Your task to perform on an android device: open app "Cash App" Image 0: 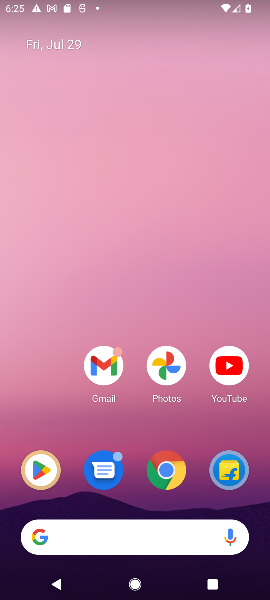
Step 0: drag from (193, 415) to (195, 31)
Your task to perform on an android device: open app "Cash App" Image 1: 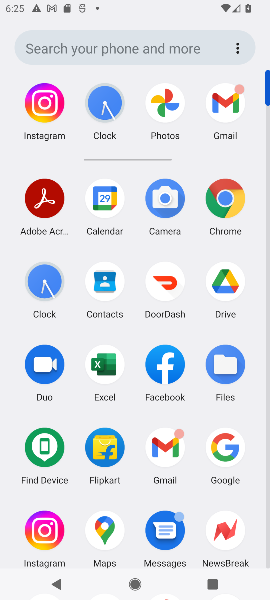
Step 1: drag from (195, 485) to (194, 293)
Your task to perform on an android device: open app "Cash App" Image 2: 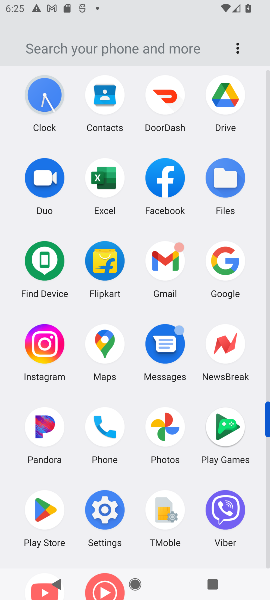
Step 2: click (52, 506)
Your task to perform on an android device: open app "Cash App" Image 3: 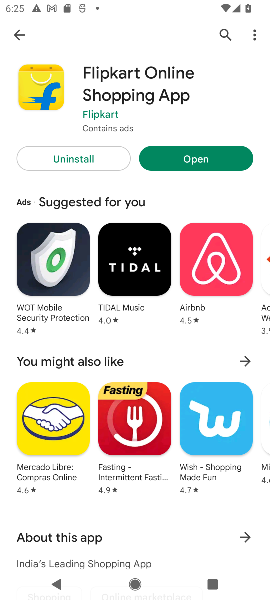
Step 3: click (222, 30)
Your task to perform on an android device: open app "Cash App" Image 4: 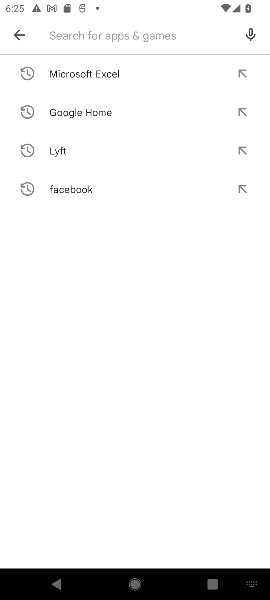
Step 4: type "Cash App"
Your task to perform on an android device: open app "Cash App" Image 5: 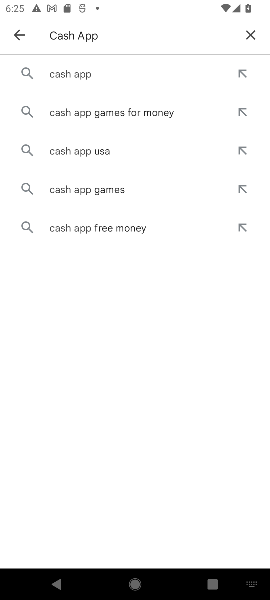
Step 5: press enter
Your task to perform on an android device: open app "Cash App" Image 6: 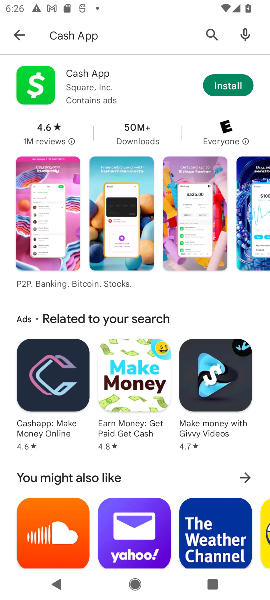
Step 6: task complete